Your task to perform on an android device: Open settings on Google Maps Image 0: 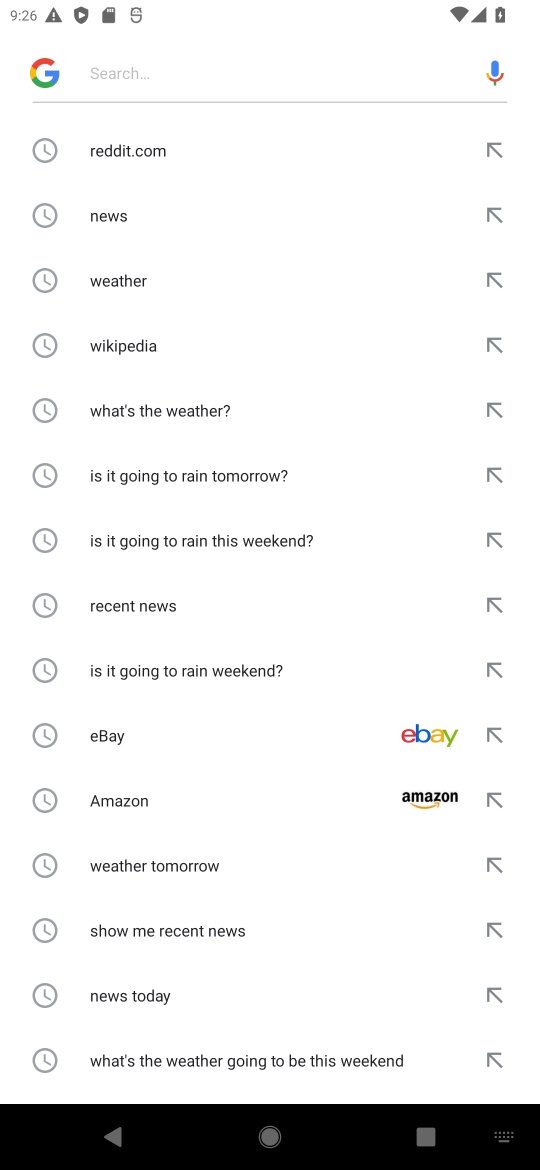
Step 0: press home button
Your task to perform on an android device: Open settings on Google Maps Image 1: 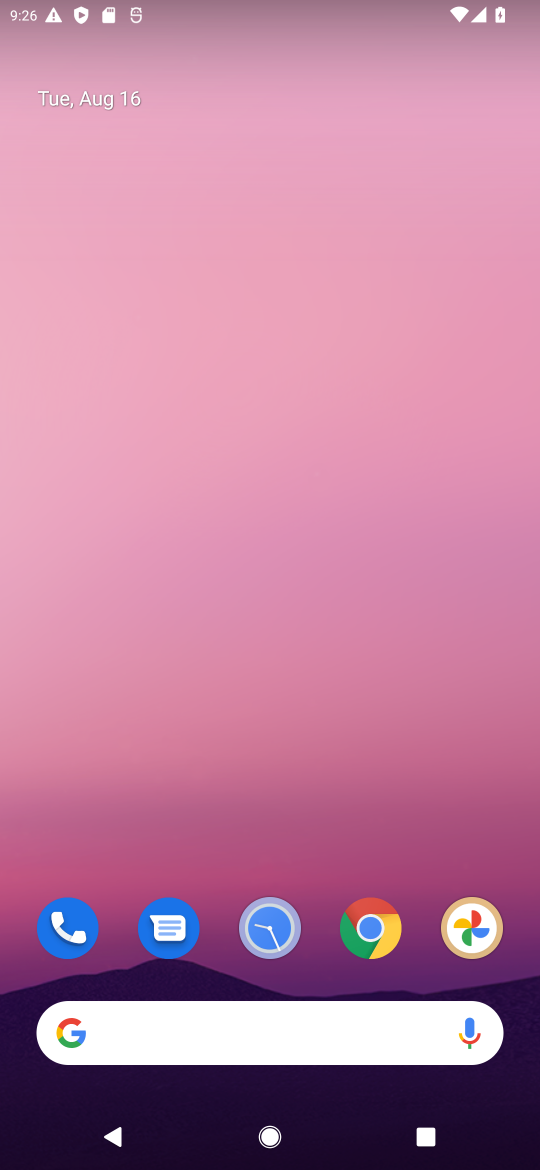
Step 1: drag from (301, 859) to (289, 91)
Your task to perform on an android device: Open settings on Google Maps Image 2: 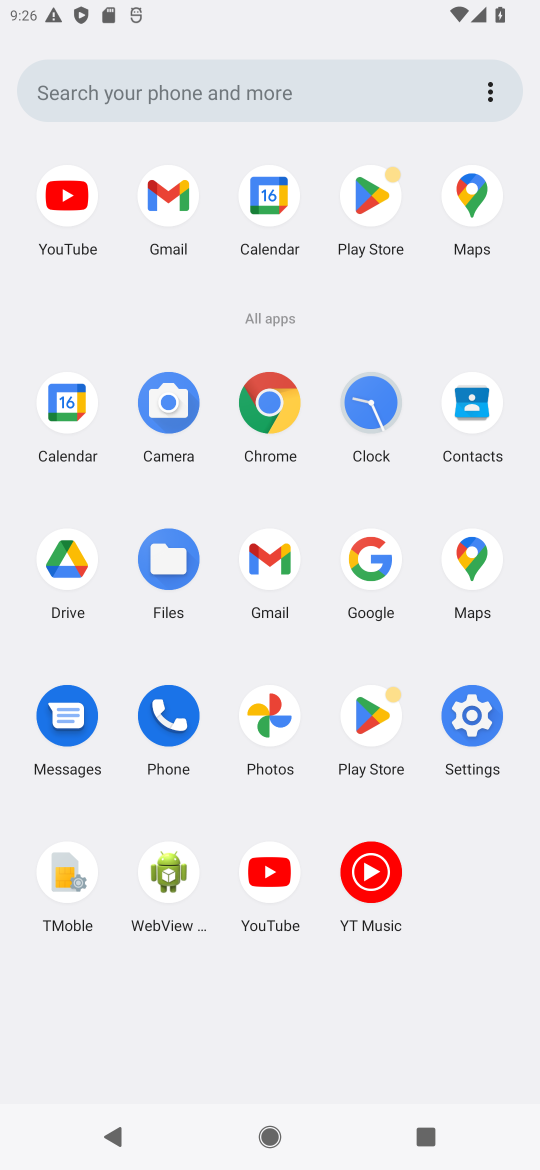
Step 2: click (461, 579)
Your task to perform on an android device: Open settings on Google Maps Image 3: 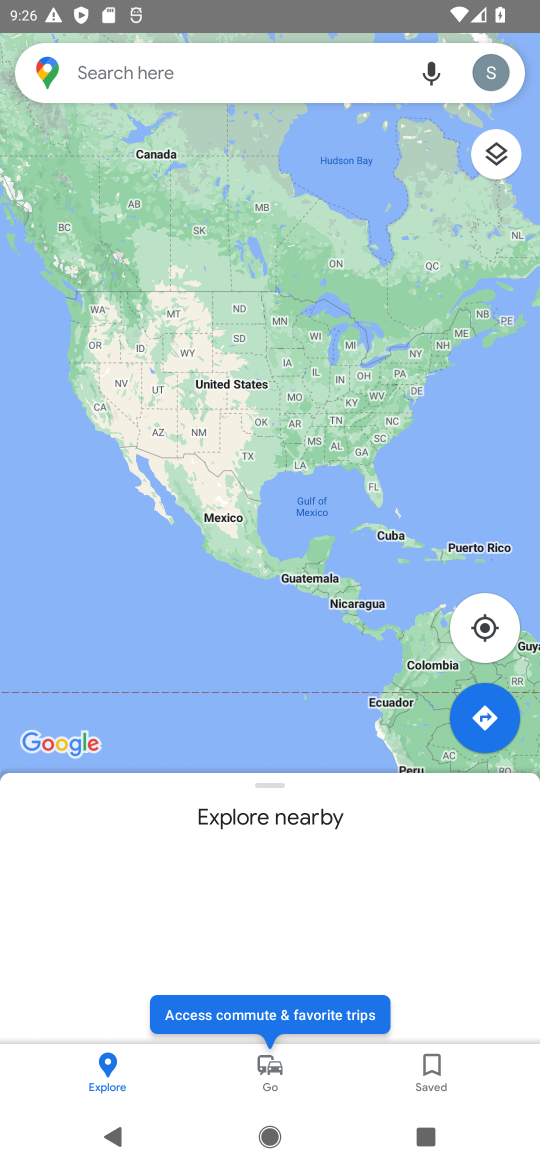
Step 3: click (494, 71)
Your task to perform on an android device: Open settings on Google Maps Image 4: 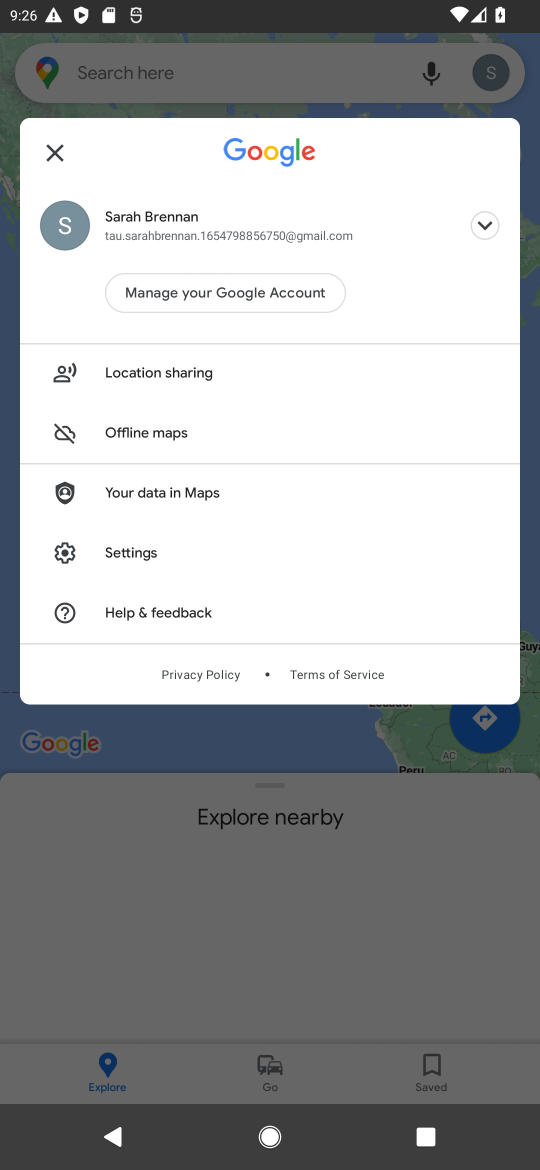
Step 4: click (139, 541)
Your task to perform on an android device: Open settings on Google Maps Image 5: 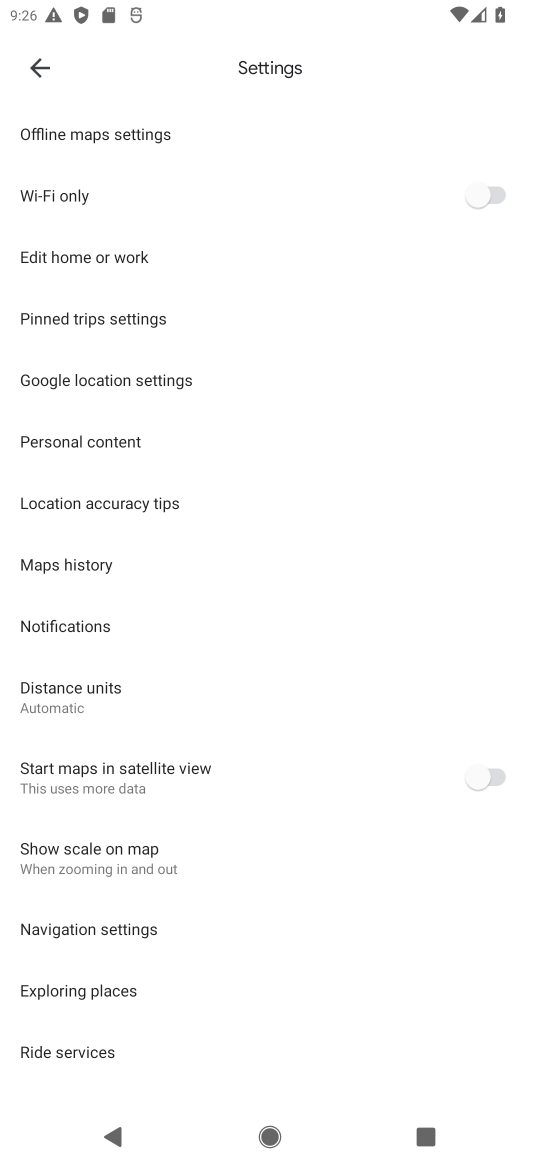
Step 5: task complete